Your task to perform on an android device: Go to Android settings Image 0: 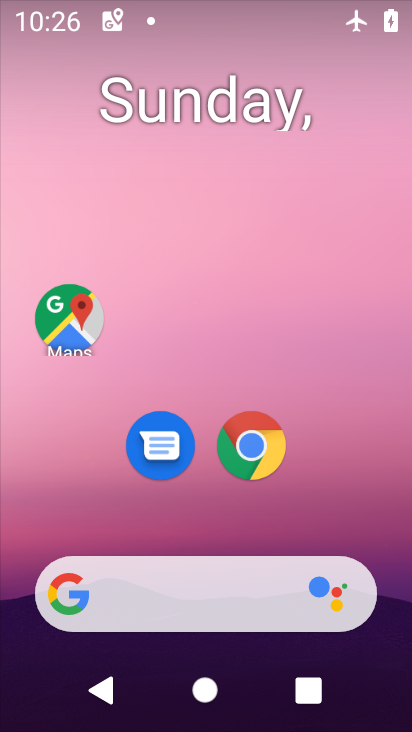
Step 0: drag from (219, 539) to (269, 27)
Your task to perform on an android device: Go to Android settings Image 1: 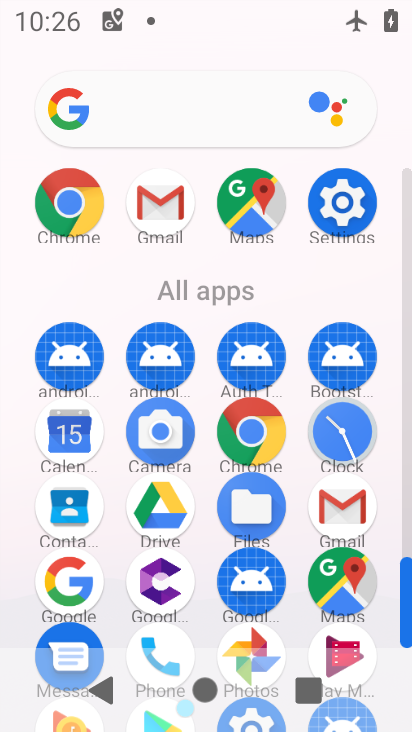
Step 1: click (355, 196)
Your task to perform on an android device: Go to Android settings Image 2: 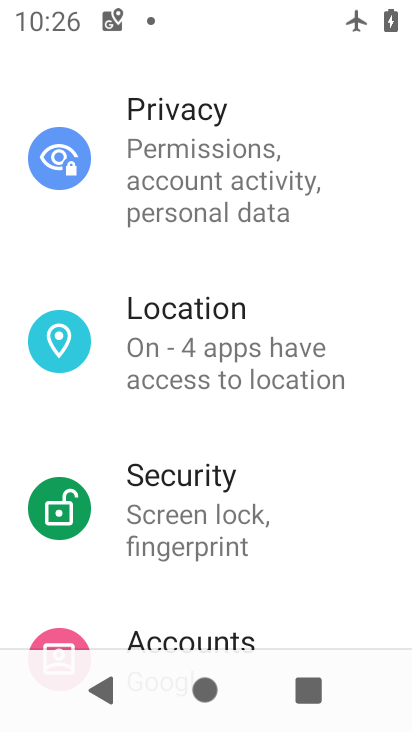
Step 2: drag from (274, 529) to (247, 7)
Your task to perform on an android device: Go to Android settings Image 3: 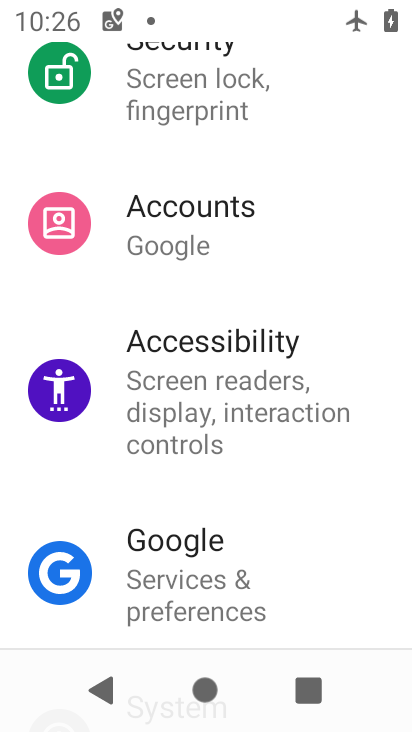
Step 3: drag from (241, 416) to (257, 4)
Your task to perform on an android device: Go to Android settings Image 4: 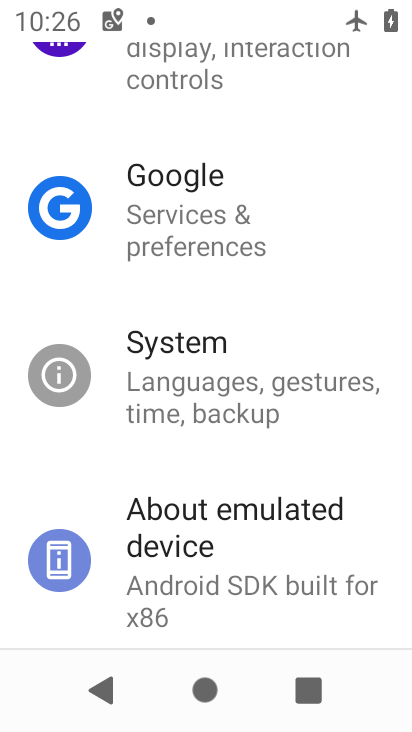
Step 4: click (233, 637)
Your task to perform on an android device: Go to Android settings Image 5: 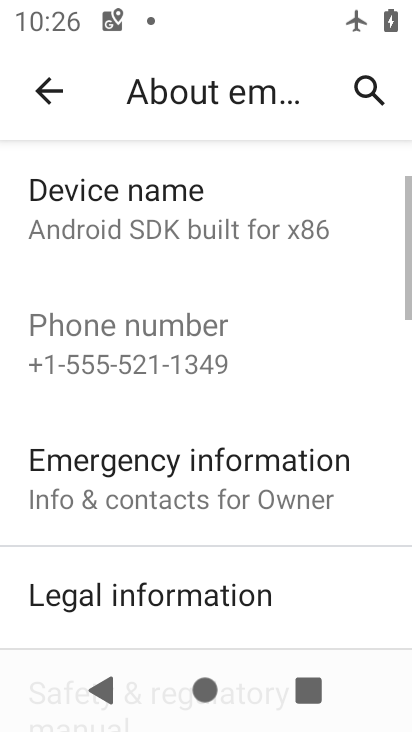
Step 5: drag from (174, 543) to (171, 64)
Your task to perform on an android device: Go to Android settings Image 6: 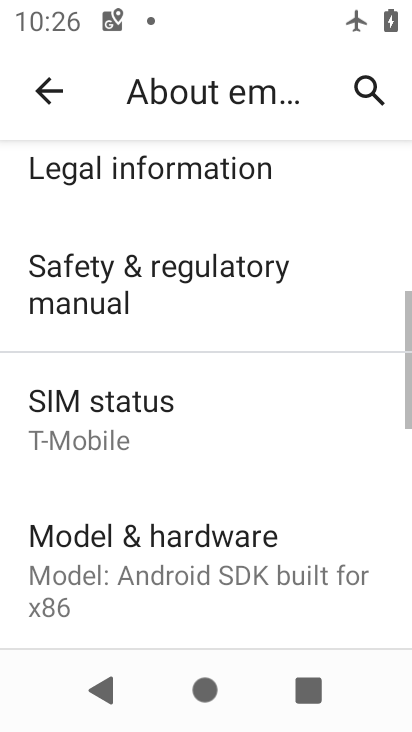
Step 6: drag from (137, 524) to (140, 133)
Your task to perform on an android device: Go to Android settings Image 7: 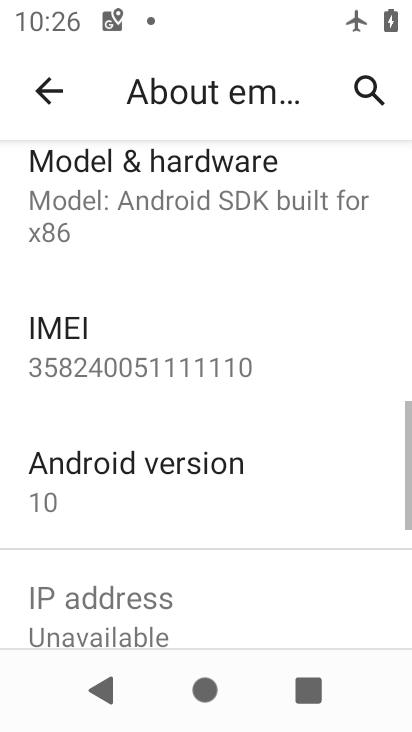
Step 7: click (112, 492)
Your task to perform on an android device: Go to Android settings Image 8: 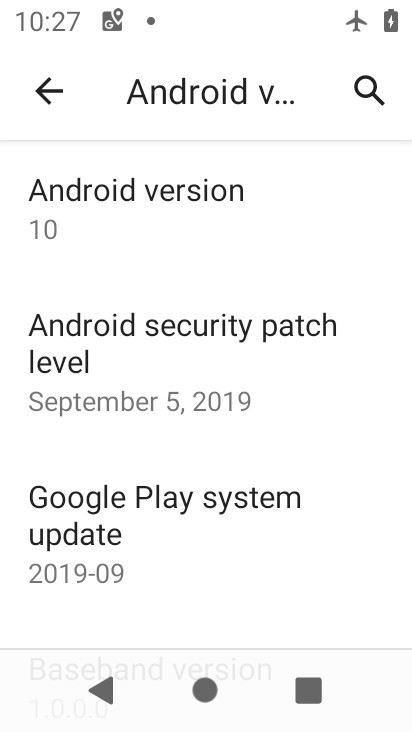
Step 8: click (169, 215)
Your task to perform on an android device: Go to Android settings Image 9: 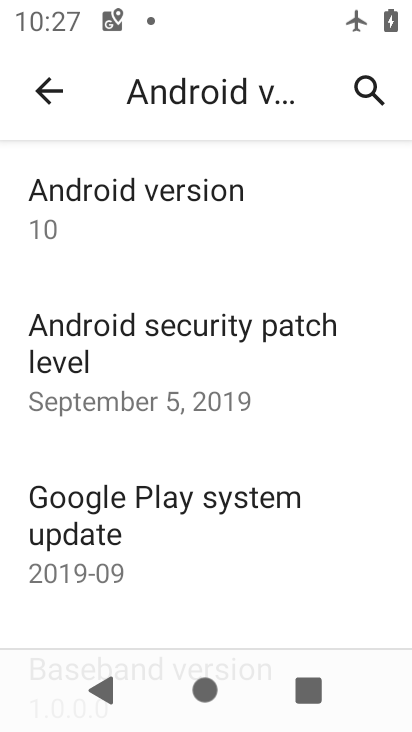
Step 9: task complete